Your task to perform on an android device: turn off smart reply in the gmail app Image 0: 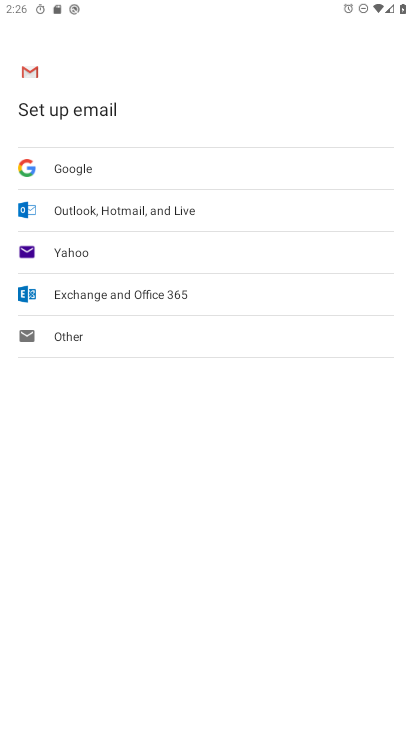
Step 0: drag from (156, 436) to (233, 173)
Your task to perform on an android device: turn off smart reply in the gmail app Image 1: 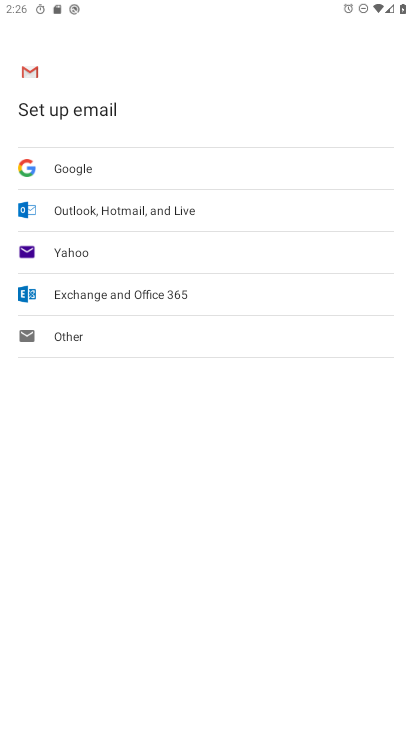
Step 1: press home button
Your task to perform on an android device: turn off smart reply in the gmail app Image 2: 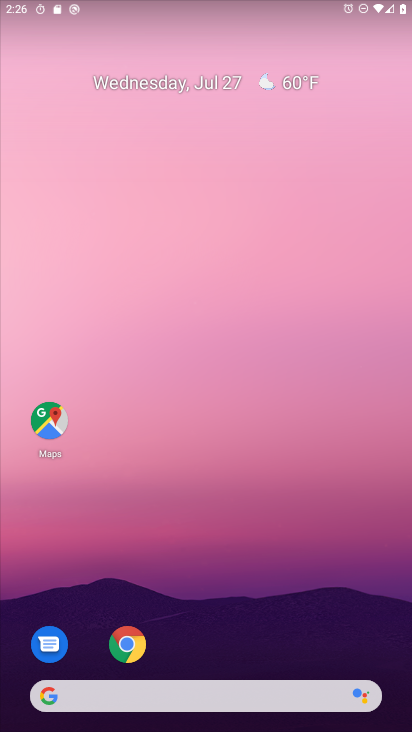
Step 2: drag from (177, 612) to (173, 217)
Your task to perform on an android device: turn off smart reply in the gmail app Image 3: 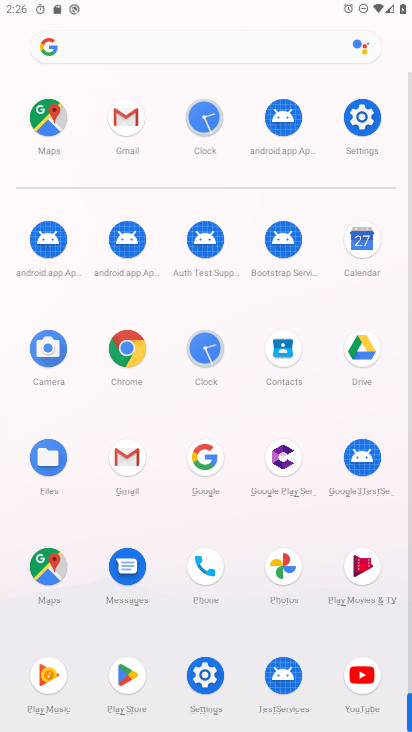
Step 3: click (196, 678)
Your task to perform on an android device: turn off smart reply in the gmail app Image 4: 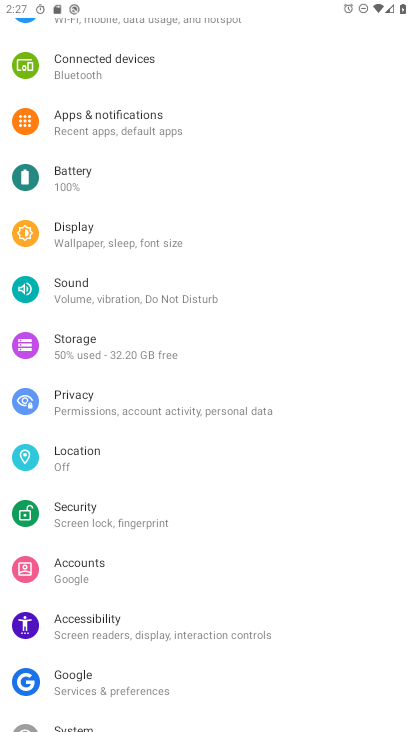
Step 4: drag from (185, 657) to (224, 226)
Your task to perform on an android device: turn off smart reply in the gmail app Image 5: 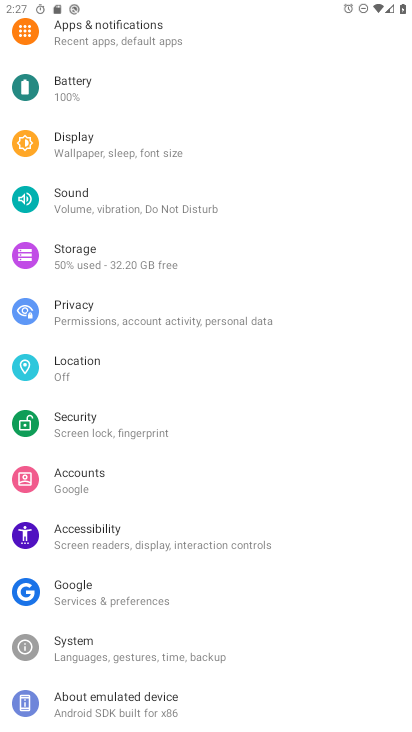
Step 5: drag from (6, 628) to (122, 376)
Your task to perform on an android device: turn off smart reply in the gmail app Image 6: 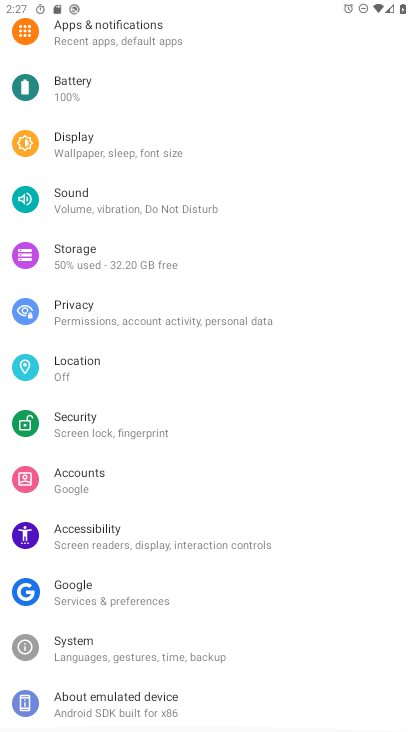
Step 6: press home button
Your task to perform on an android device: turn off smart reply in the gmail app Image 7: 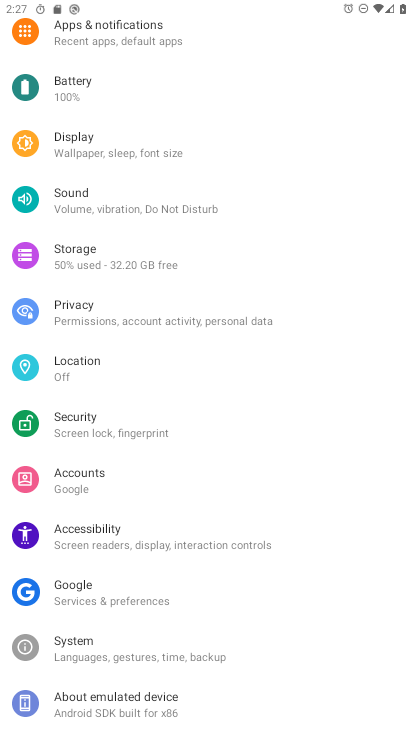
Step 7: press home button
Your task to perform on an android device: turn off smart reply in the gmail app Image 8: 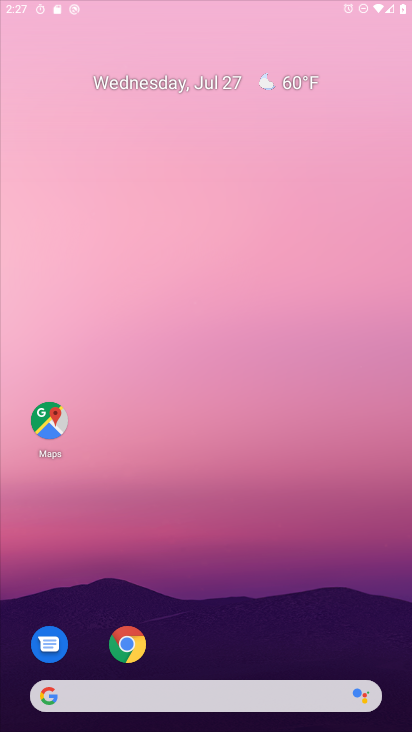
Step 8: drag from (123, 656) to (195, 180)
Your task to perform on an android device: turn off smart reply in the gmail app Image 9: 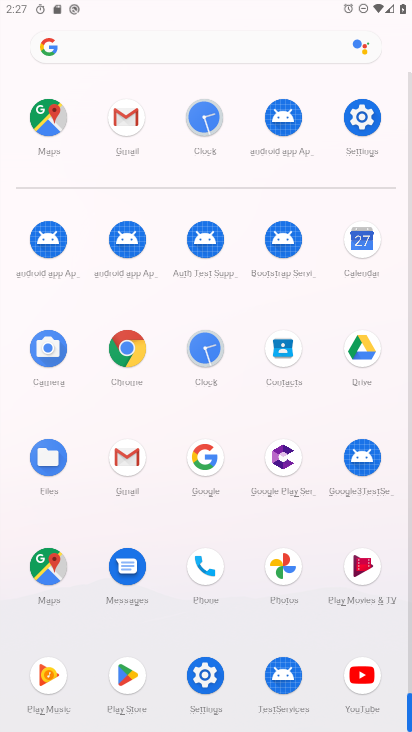
Step 9: click (135, 457)
Your task to perform on an android device: turn off smart reply in the gmail app Image 10: 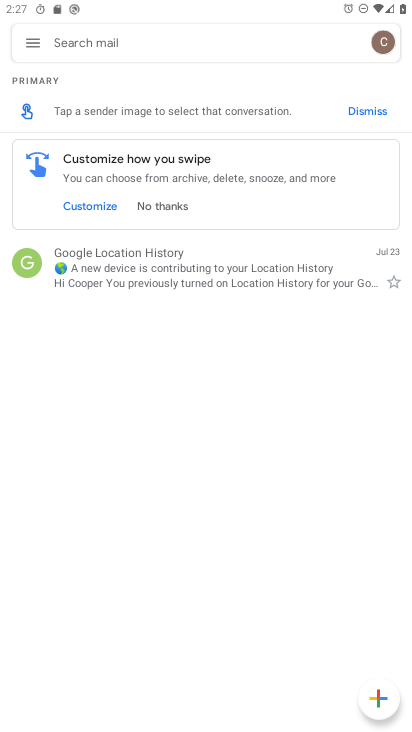
Step 10: click (40, 40)
Your task to perform on an android device: turn off smart reply in the gmail app Image 11: 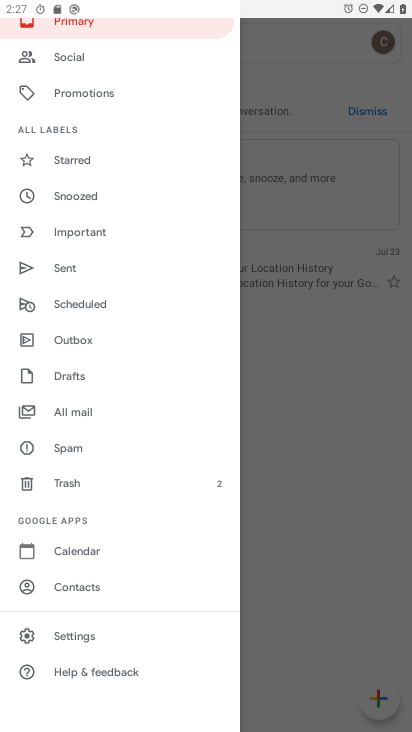
Step 11: click (78, 632)
Your task to perform on an android device: turn off smart reply in the gmail app Image 12: 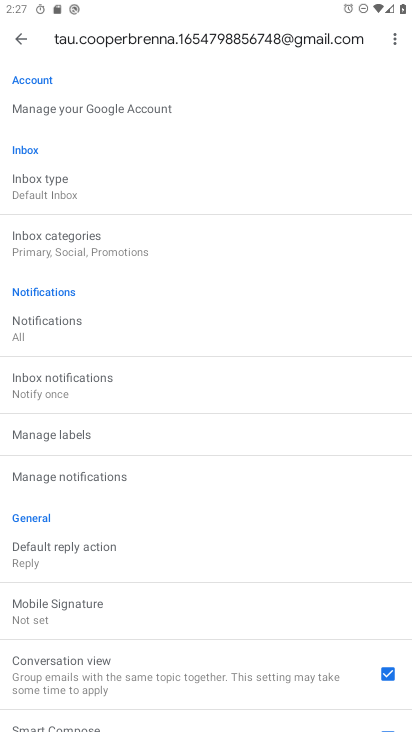
Step 12: drag from (144, 608) to (206, 230)
Your task to perform on an android device: turn off smart reply in the gmail app Image 13: 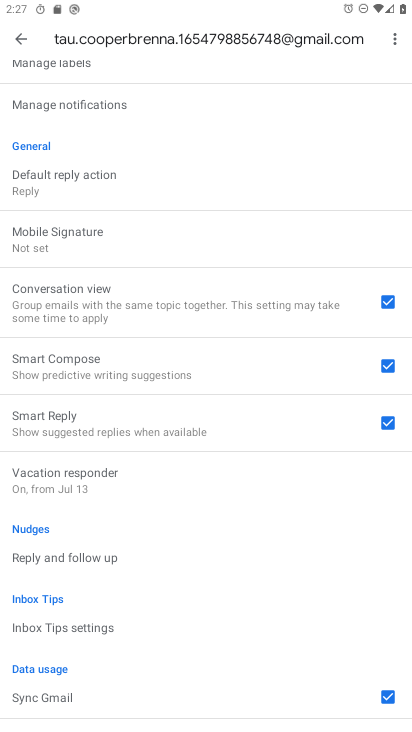
Step 13: click (297, 423)
Your task to perform on an android device: turn off smart reply in the gmail app Image 14: 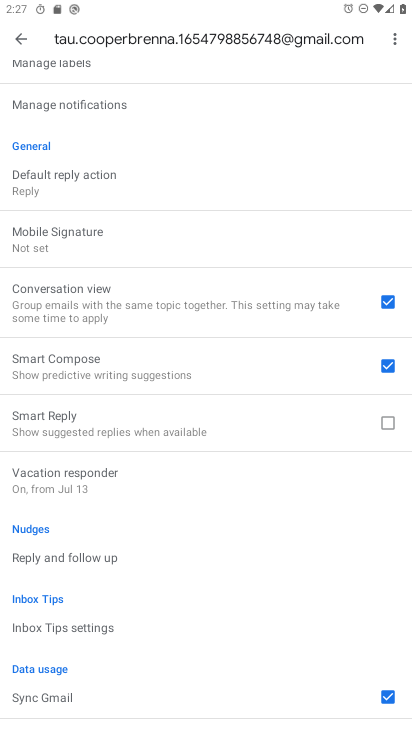
Step 14: task complete